Your task to perform on an android device: change your default location settings in chrome Image 0: 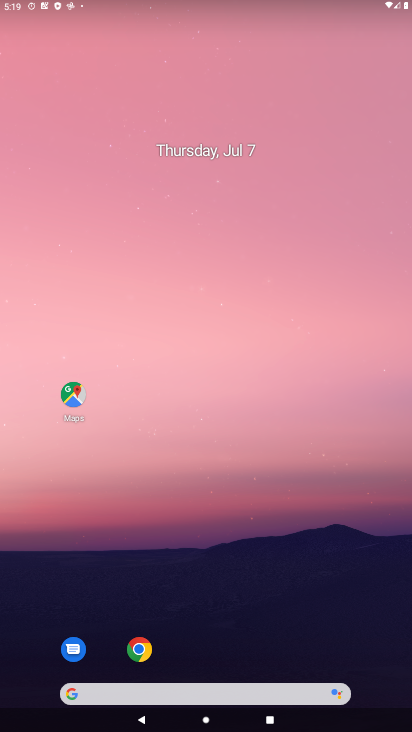
Step 0: drag from (377, 682) to (206, 33)
Your task to perform on an android device: change your default location settings in chrome Image 1: 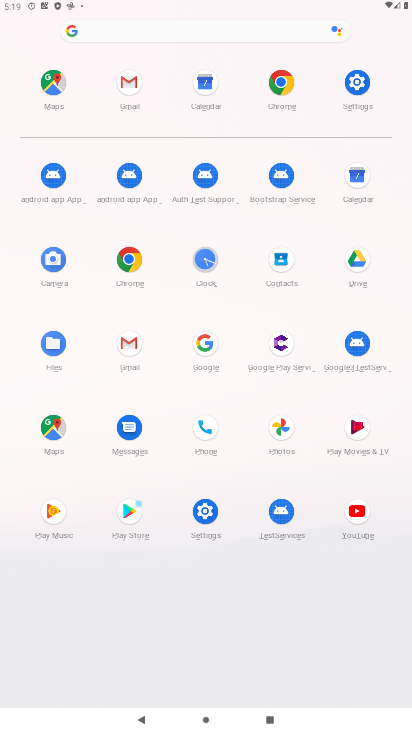
Step 1: click (270, 103)
Your task to perform on an android device: change your default location settings in chrome Image 2: 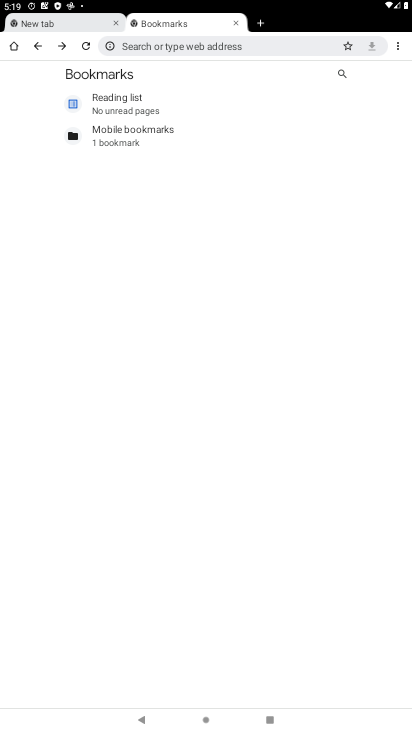
Step 2: click (400, 47)
Your task to perform on an android device: change your default location settings in chrome Image 3: 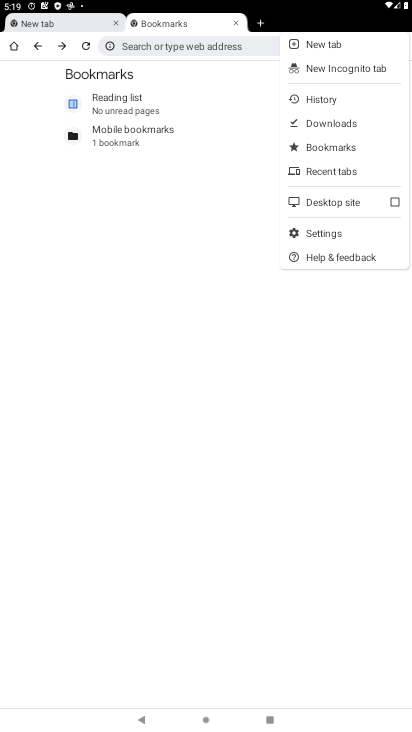
Step 3: click (333, 237)
Your task to perform on an android device: change your default location settings in chrome Image 4: 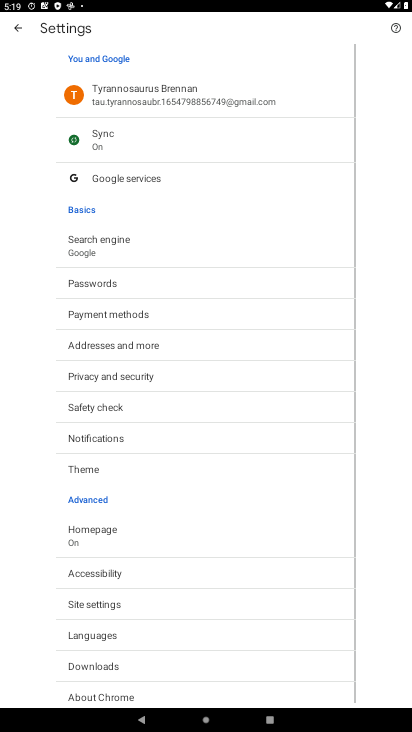
Step 4: click (165, 252)
Your task to perform on an android device: change your default location settings in chrome Image 5: 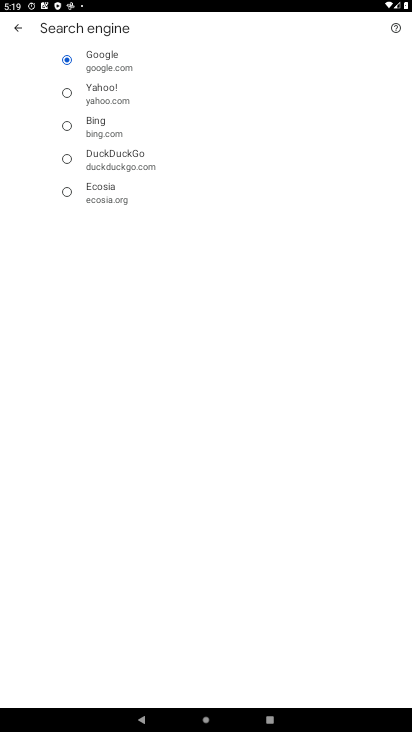
Step 5: click (72, 126)
Your task to perform on an android device: change your default location settings in chrome Image 6: 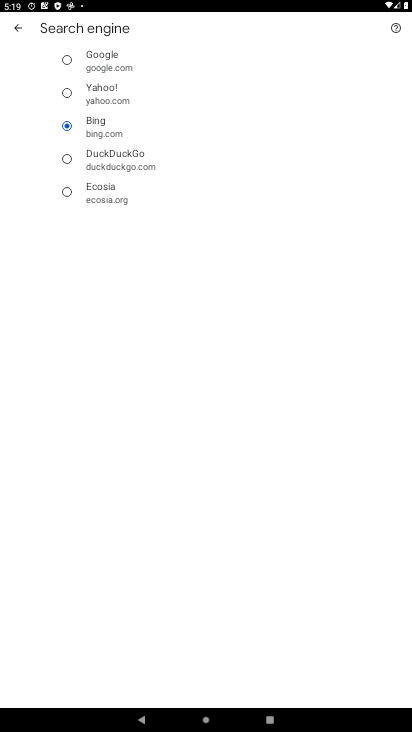
Step 6: task complete